Your task to perform on an android device: Search for seafood restaurants on Google Maps Image 0: 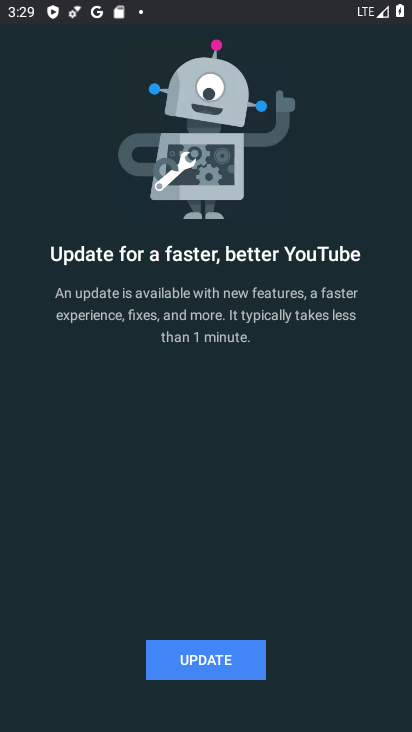
Step 0: press back button
Your task to perform on an android device: Search for seafood restaurants on Google Maps Image 1: 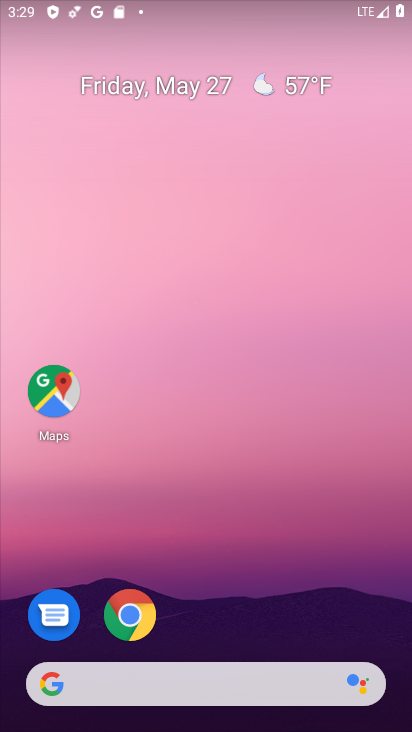
Step 1: click (57, 393)
Your task to perform on an android device: Search for seafood restaurants on Google Maps Image 2: 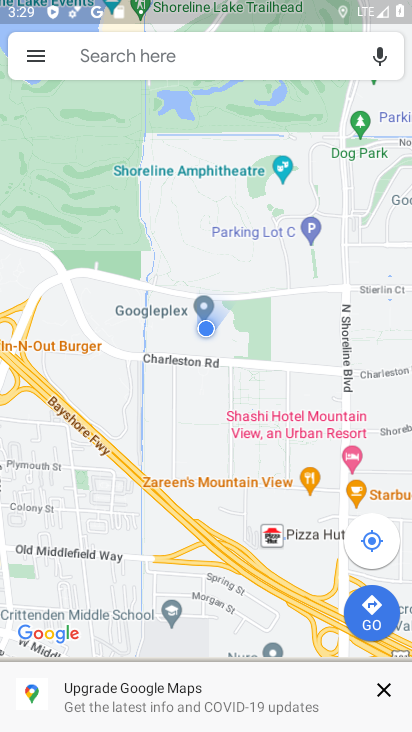
Step 2: click (167, 55)
Your task to perform on an android device: Search for seafood restaurants on Google Maps Image 3: 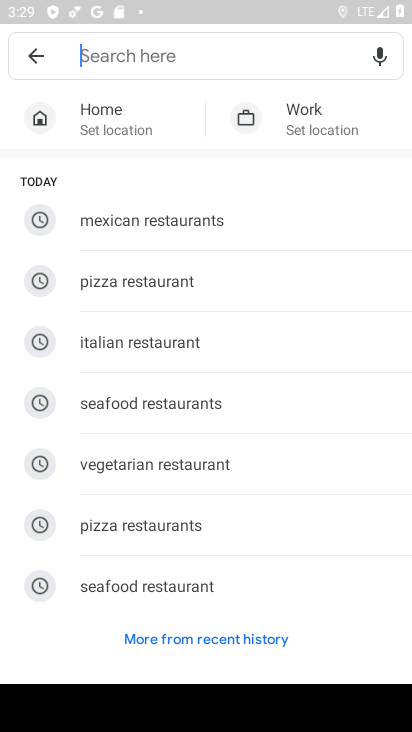
Step 3: click (141, 356)
Your task to perform on an android device: Search for seafood restaurants on Google Maps Image 4: 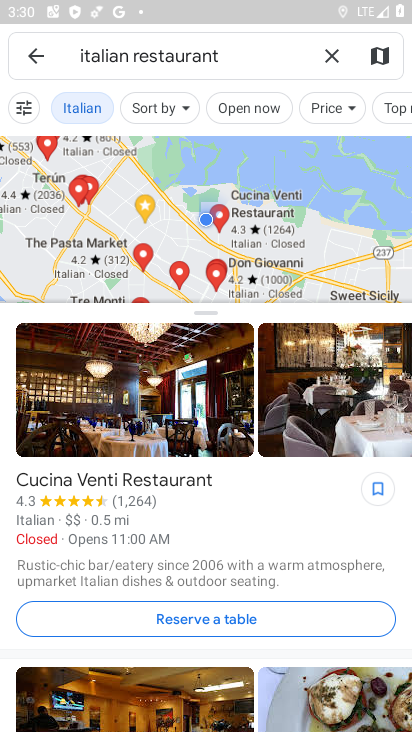
Step 4: click (141, 356)
Your task to perform on an android device: Search for seafood restaurants on Google Maps Image 5: 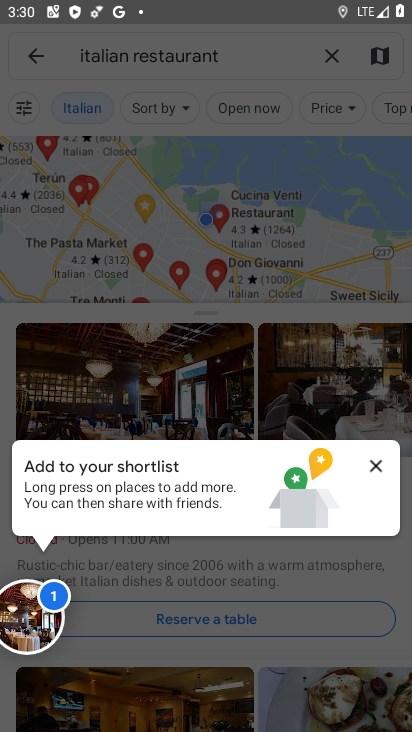
Step 5: click (23, 310)
Your task to perform on an android device: Search for seafood restaurants on Google Maps Image 6: 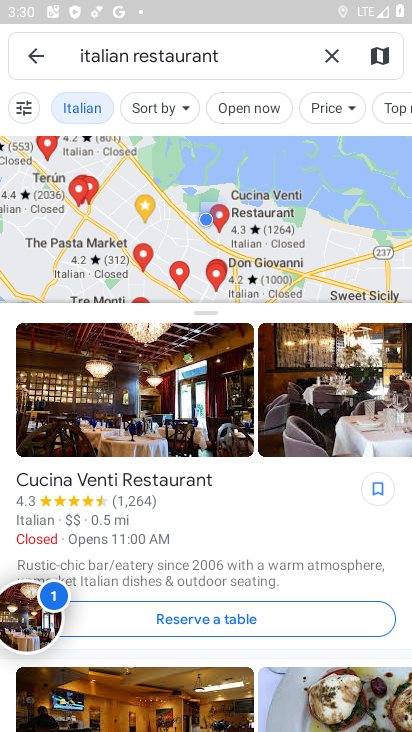
Step 6: task complete